Your task to perform on an android device: delete browsing data in the chrome app Image 0: 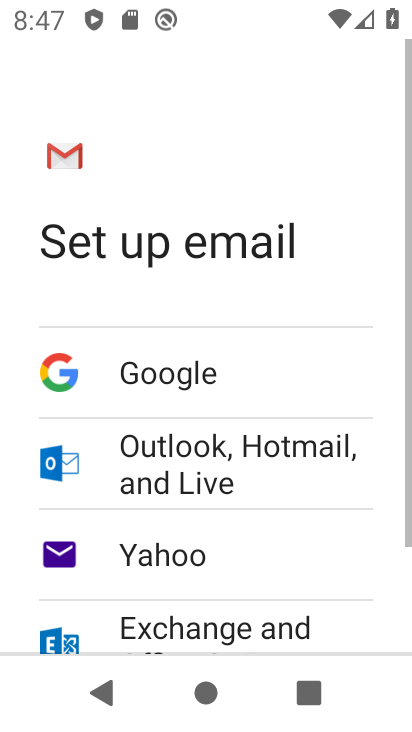
Step 0: press home button
Your task to perform on an android device: delete browsing data in the chrome app Image 1: 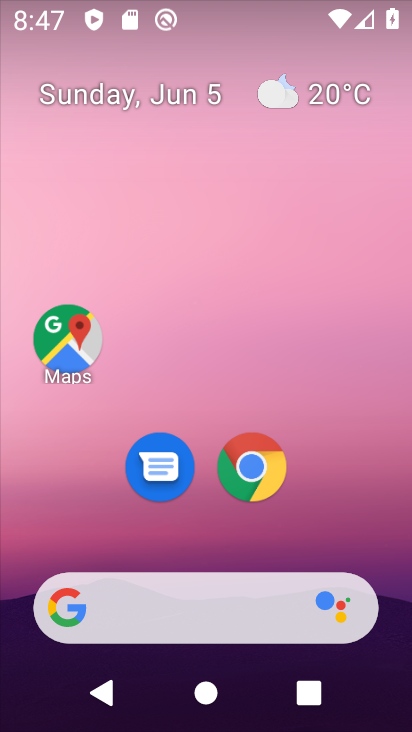
Step 1: click (249, 469)
Your task to perform on an android device: delete browsing data in the chrome app Image 2: 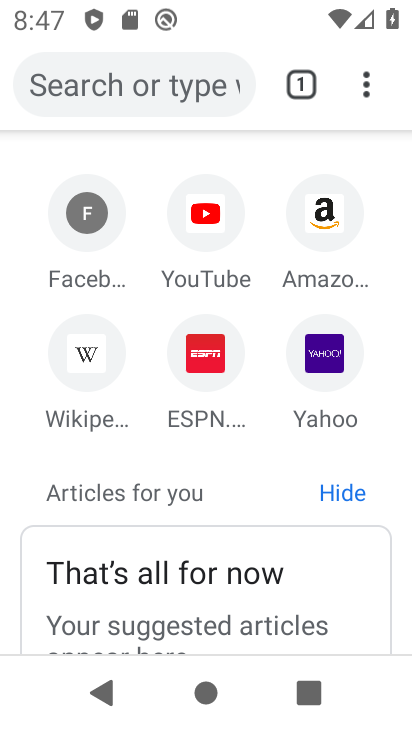
Step 2: click (360, 83)
Your task to perform on an android device: delete browsing data in the chrome app Image 3: 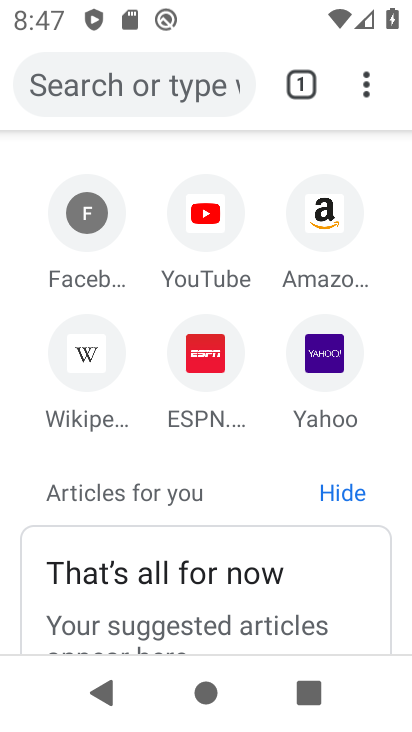
Step 3: click (357, 91)
Your task to perform on an android device: delete browsing data in the chrome app Image 4: 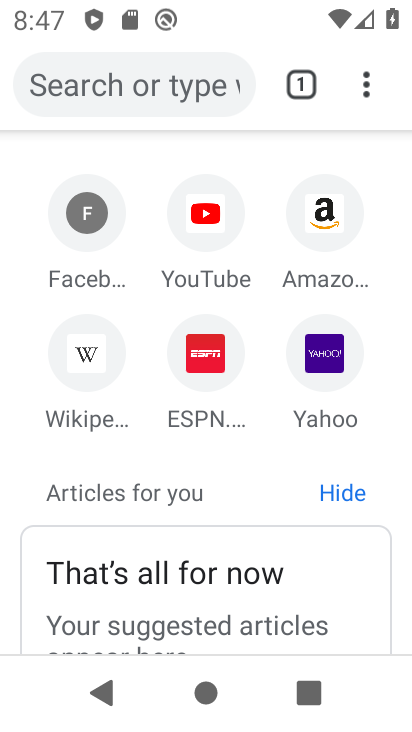
Step 4: click (363, 80)
Your task to perform on an android device: delete browsing data in the chrome app Image 5: 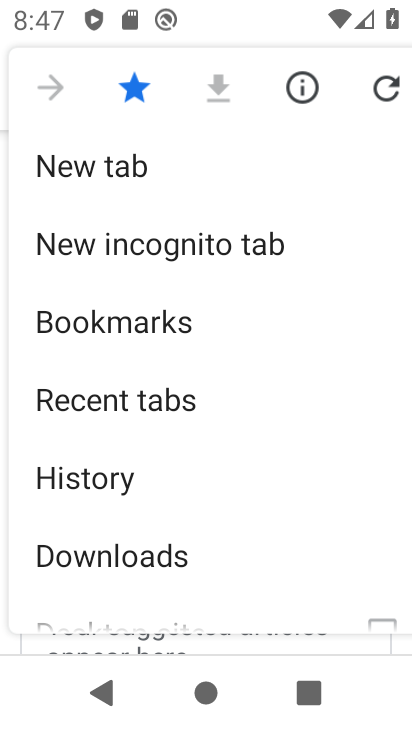
Step 5: click (121, 466)
Your task to perform on an android device: delete browsing data in the chrome app Image 6: 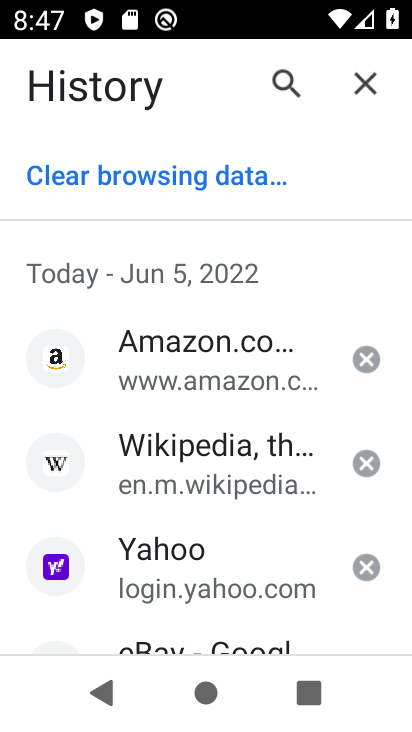
Step 6: click (154, 159)
Your task to perform on an android device: delete browsing data in the chrome app Image 7: 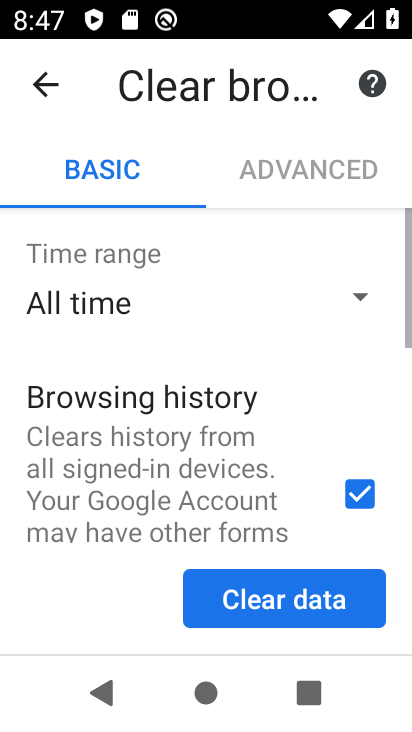
Step 7: click (304, 601)
Your task to perform on an android device: delete browsing data in the chrome app Image 8: 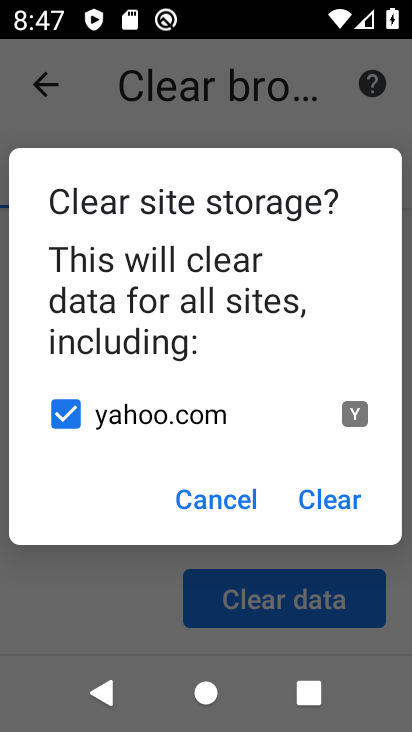
Step 8: click (340, 485)
Your task to perform on an android device: delete browsing data in the chrome app Image 9: 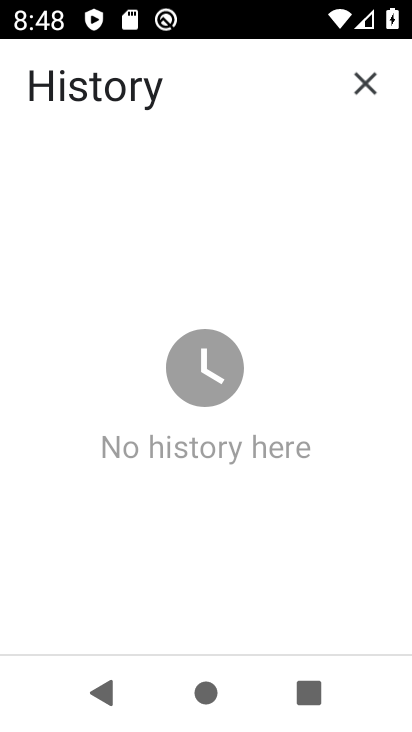
Step 9: task complete